Your task to perform on an android device: refresh tabs in the chrome app Image 0: 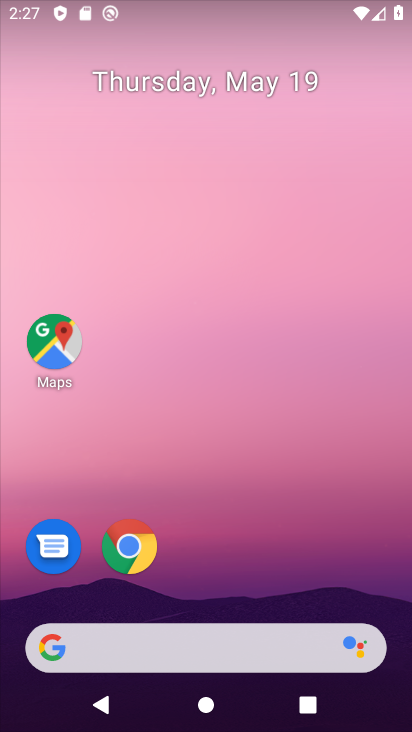
Step 0: press home button
Your task to perform on an android device: refresh tabs in the chrome app Image 1: 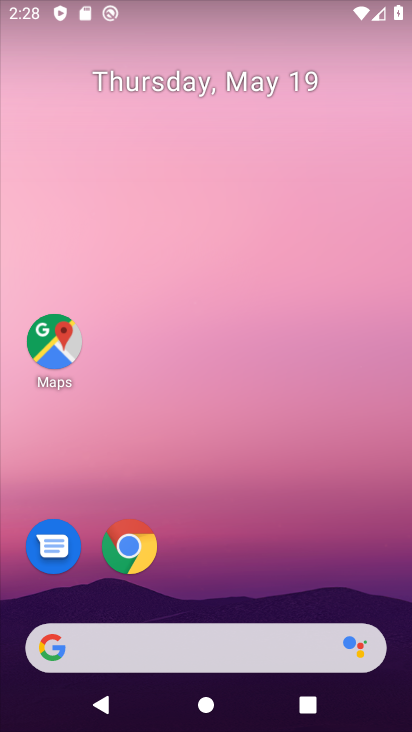
Step 1: click (133, 552)
Your task to perform on an android device: refresh tabs in the chrome app Image 2: 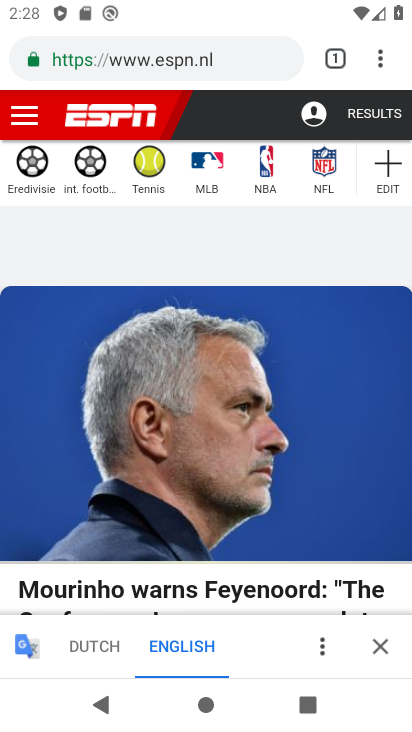
Step 2: click (378, 79)
Your task to perform on an android device: refresh tabs in the chrome app Image 3: 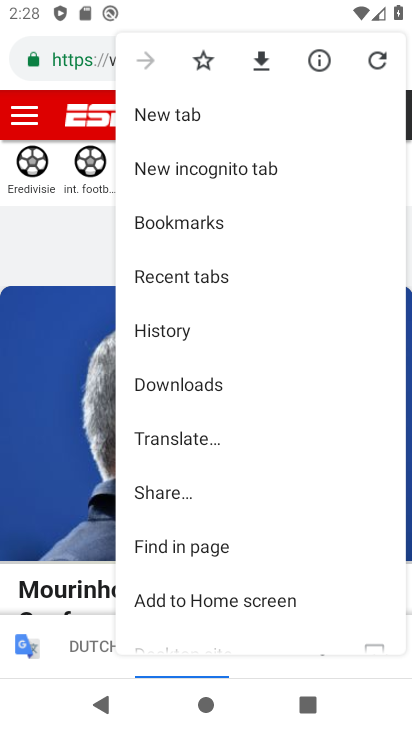
Step 3: click (368, 58)
Your task to perform on an android device: refresh tabs in the chrome app Image 4: 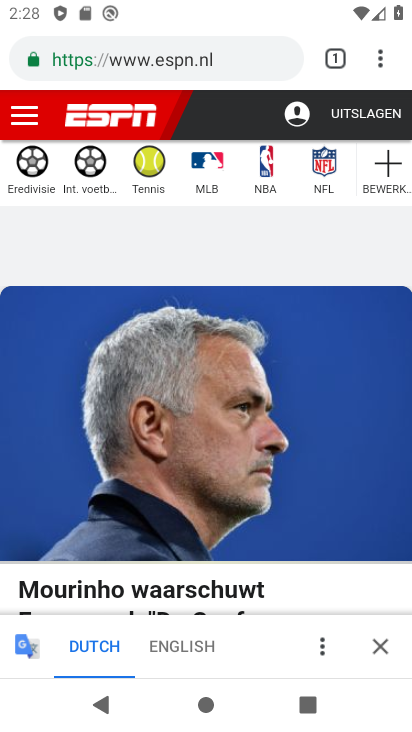
Step 4: task complete